Your task to perform on an android device: Open Maps and search for coffee Image 0: 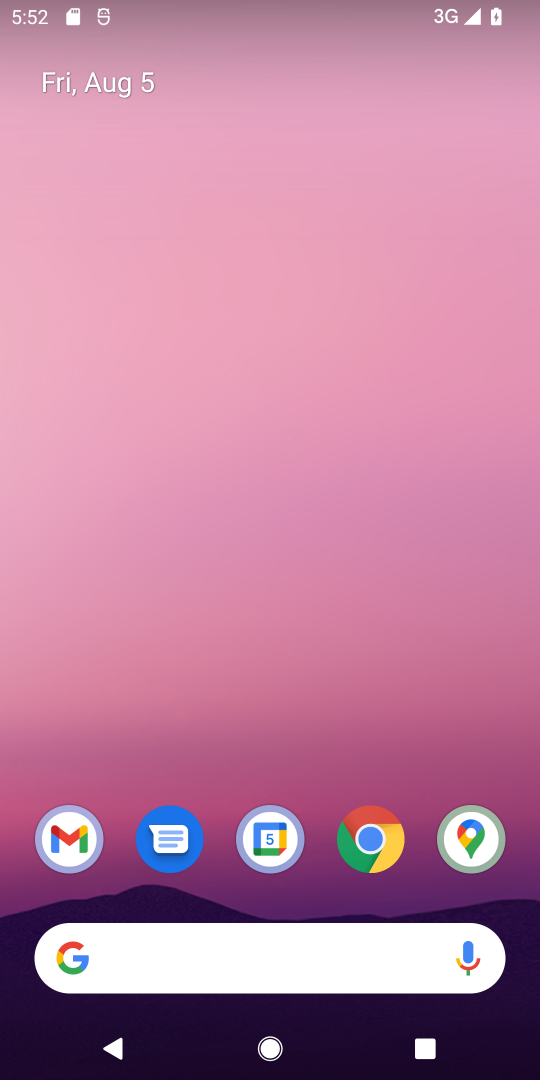
Step 0: click (442, 828)
Your task to perform on an android device: Open Maps and search for coffee Image 1: 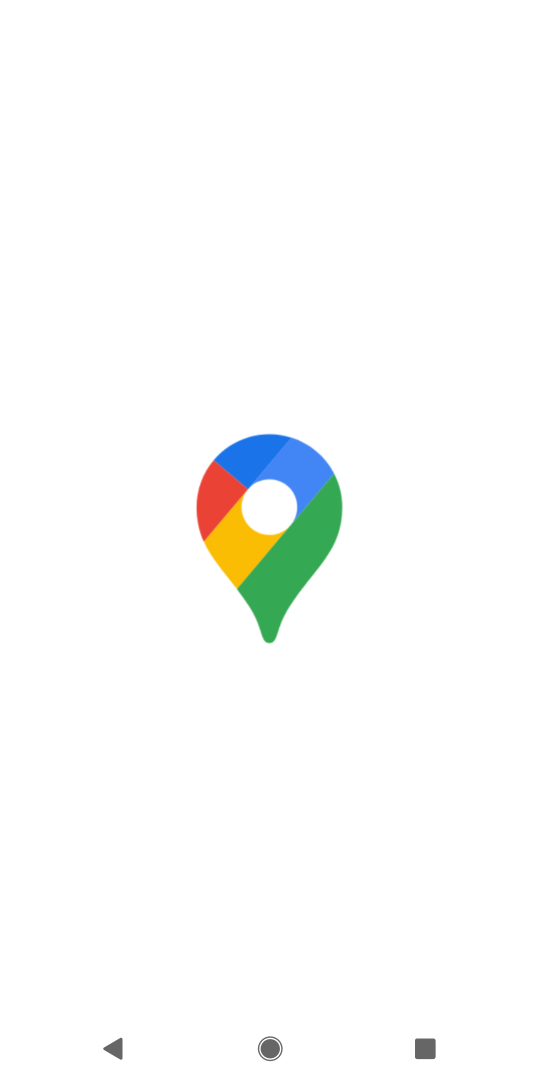
Step 1: task complete